Your task to perform on an android device: change the upload size in google photos Image 0: 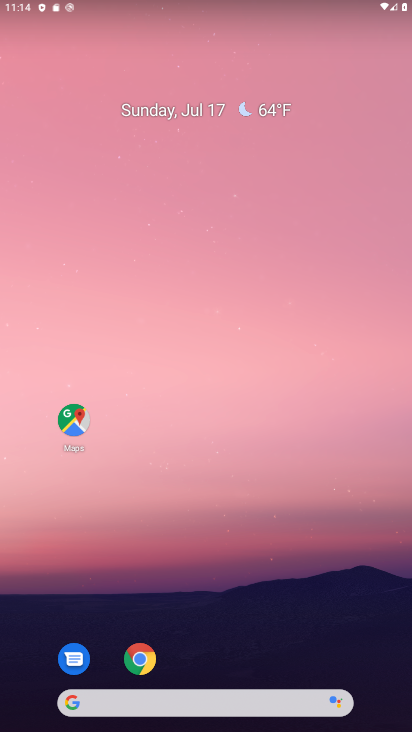
Step 0: drag from (243, 588) to (263, 184)
Your task to perform on an android device: change the upload size in google photos Image 1: 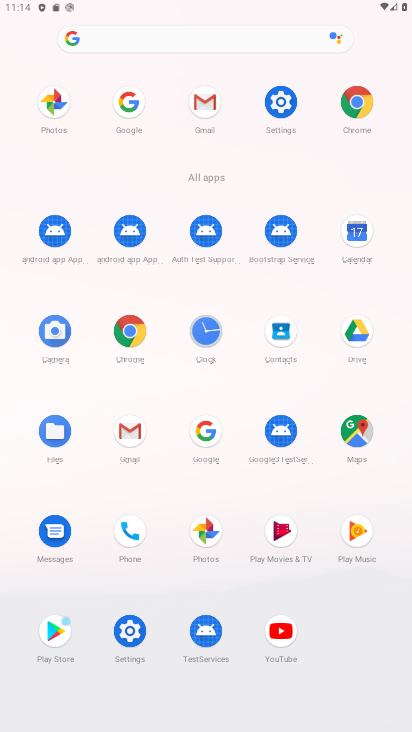
Step 1: click (207, 533)
Your task to perform on an android device: change the upload size in google photos Image 2: 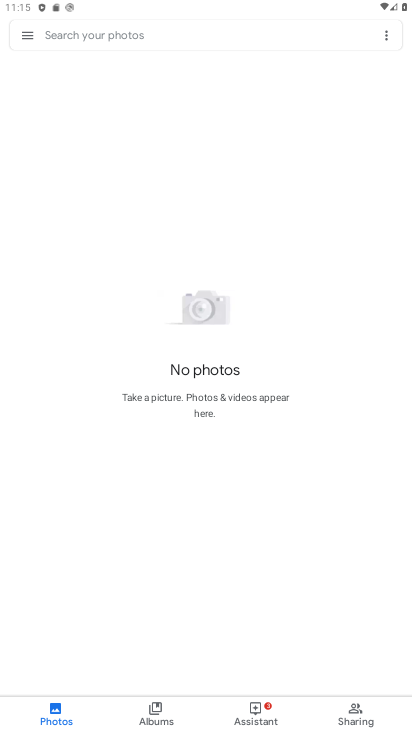
Step 2: task complete